Your task to perform on an android device: check the backup settings in the google photos Image 0: 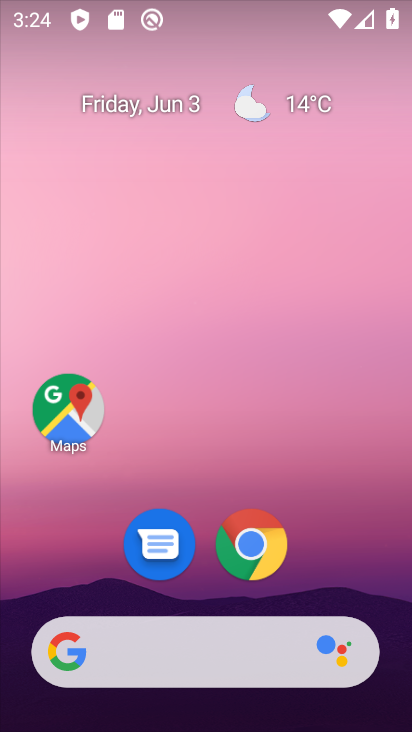
Step 0: drag from (89, 577) to (196, 170)
Your task to perform on an android device: check the backup settings in the google photos Image 1: 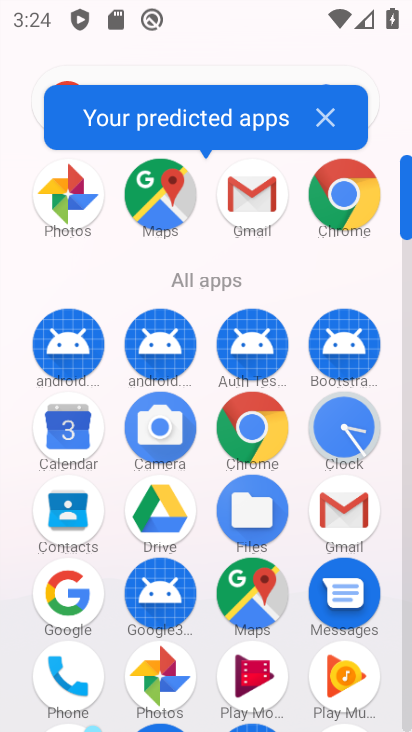
Step 1: drag from (169, 598) to (212, 371)
Your task to perform on an android device: check the backup settings in the google photos Image 2: 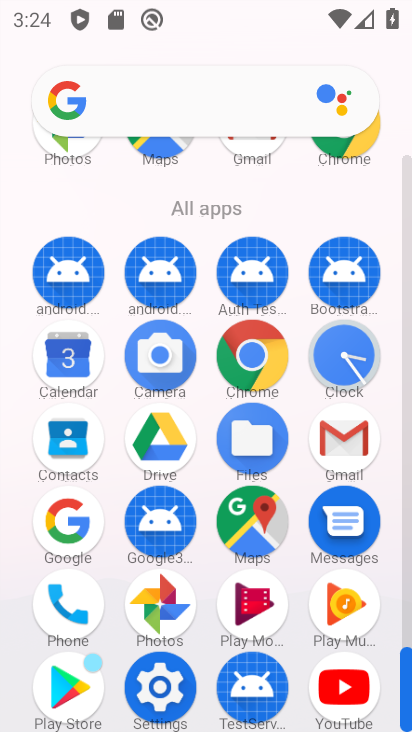
Step 2: click (160, 611)
Your task to perform on an android device: check the backup settings in the google photos Image 3: 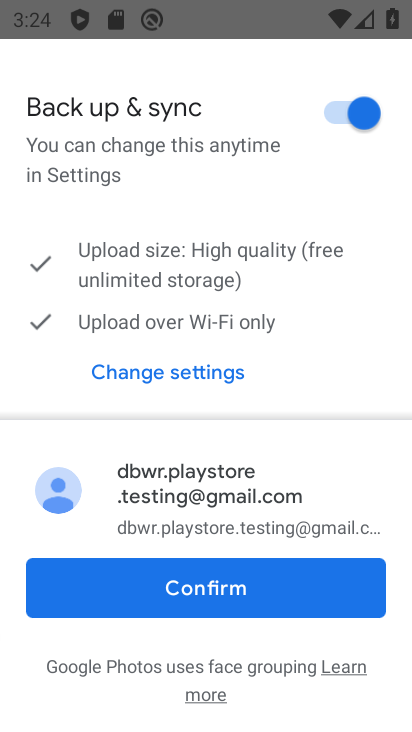
Step 3: click (230, 616)
Your task to perform on an android device: check the backup settings in the google photos Image 4: 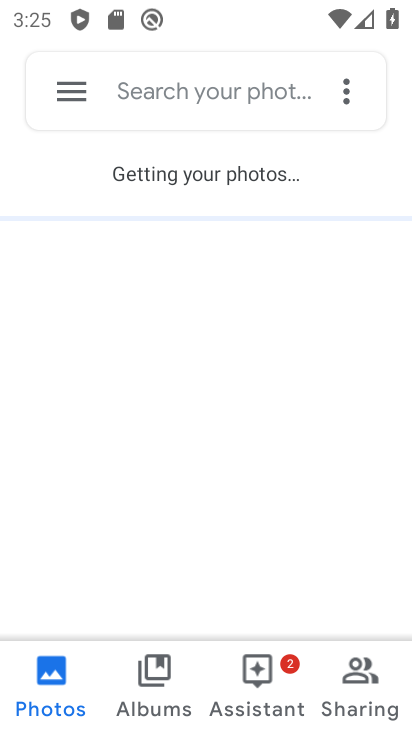
Step 4: click (71, 107)
Your task to perform on an android device: check the backup settings in the google photos Image 5: 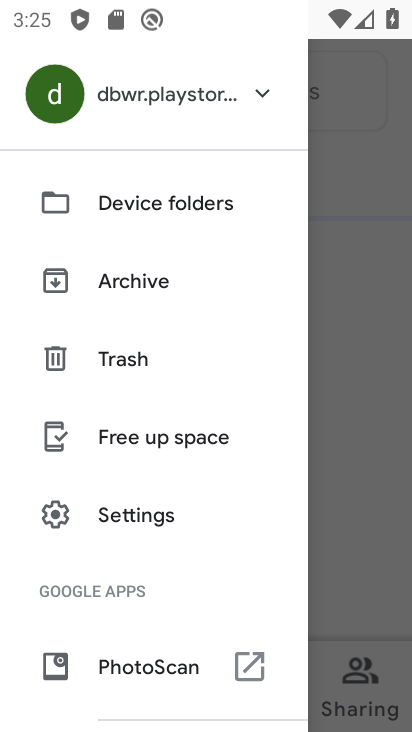
Step 5: drag from (128, 568) to (212, 229)
Your task to perform on an android device: check the backup settings in the google photos Image 6: 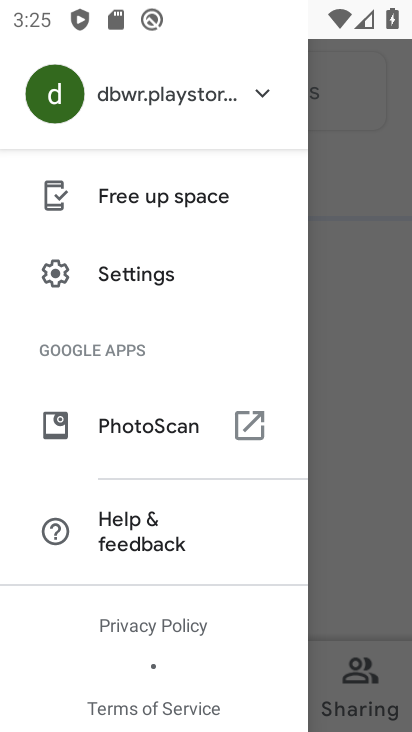
Step 6: drag from (148, 565) to (209, 220)
Your task to perform on an android device: check the backup settings in the google photos Image 7: 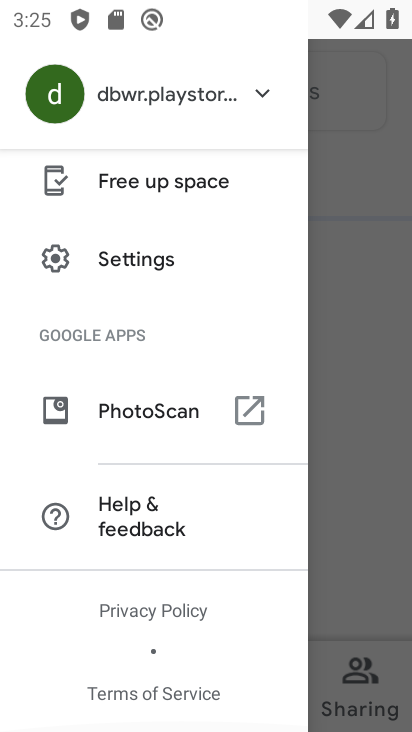
Step 7: click (166, 279)
Your task to perform on an android device: check the backup settings in the google photos Image 8: 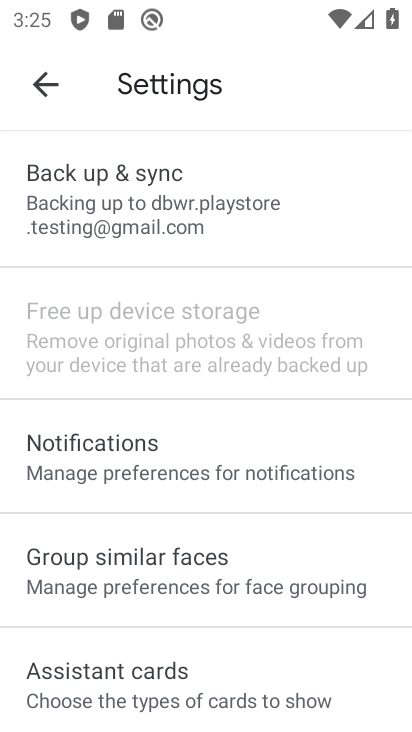
Step 8: drag from (151, 670) to (193, 642)
Your task to perform on an android device: check the backup settings in the google photos Image 9: 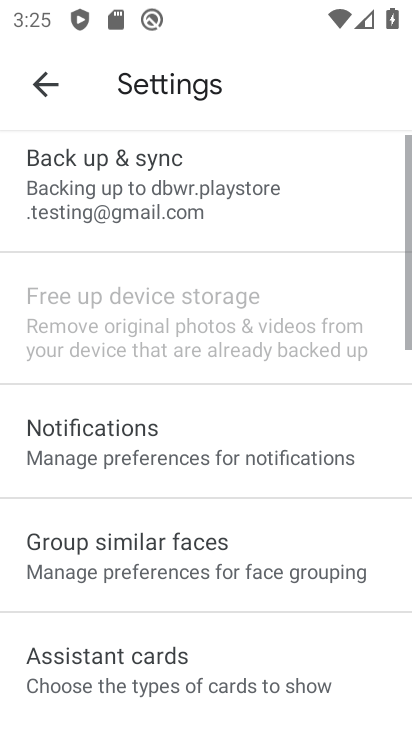
Step 9: click (246, 225)
Your task to perform on an android device: check the backup settings in the google photos Image 10: 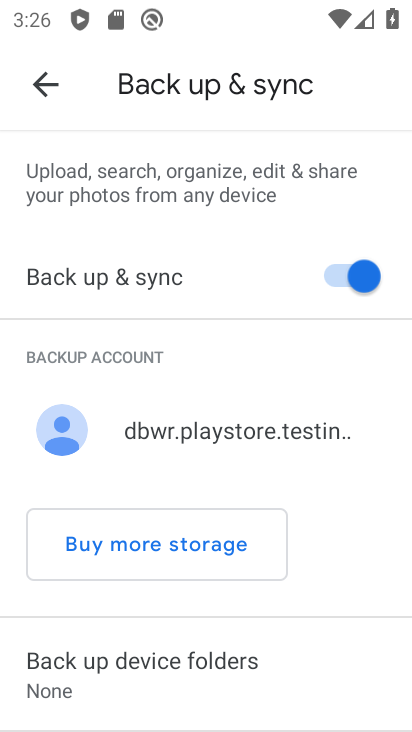
Step 10: task complete